Your task to perform on an android device: When is my next meeting? Image 0: 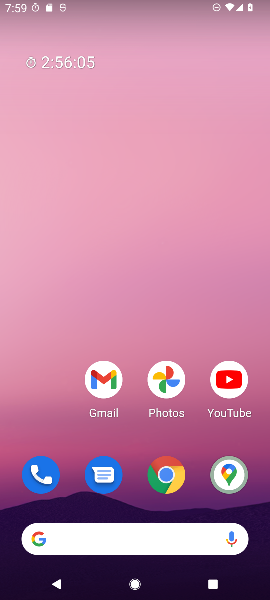
Step 0: press home button
Your task to perform on an android device: When is my next meeting? Image 1: 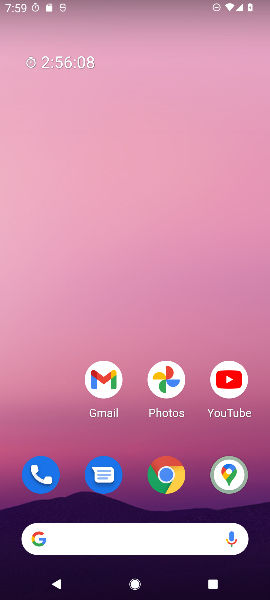
Step 1: drag from (61, 432) to (51, 219)
Your task to perform on an android device: When is my next meeting? Image 2: 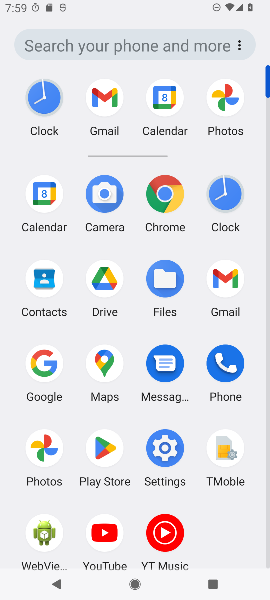
Step 2: click (45, 194)
Your task to perform on an android device: When is my next meeting? Image 3: 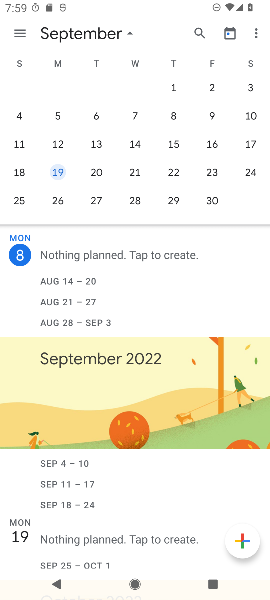
Step 3: drag from (131, 310) to (152, 170)
Your task to perform on an android device: When is my next meeting? Image 4: 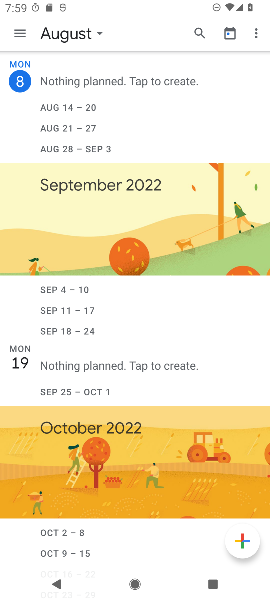
Step 4: drag from (151, 110) to (147, 186)
Your task to perform on an android device: When is my next meeting? Image 5: 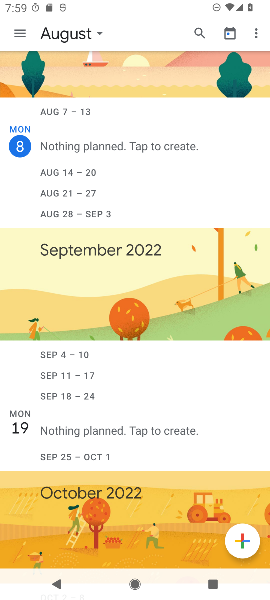
Step 5: click (102, 34)
Your task to perform on an android device: When is my next meeting? Image 6: 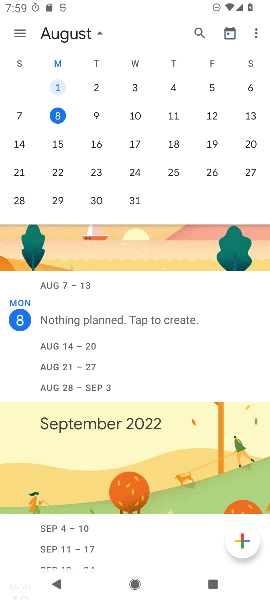
Step 6: click (63, 109)
Your task to perform on an android device: When is my next meeting? Image 7: 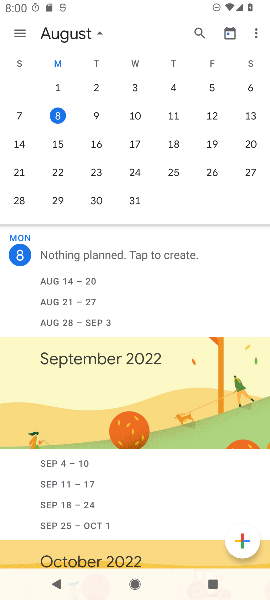
Step 7: task complete